Your task to perform on an android device: Go to display settings Image 0: 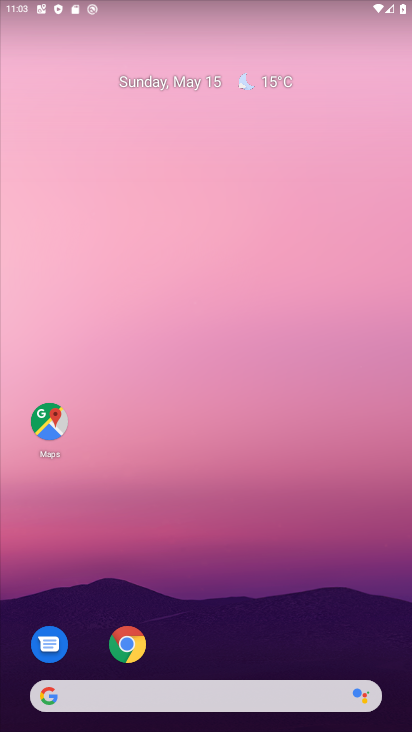
Step 0: drag from (264, 691) to (261, 77)
Your task to perform on an android device: Go to display settings Image 1: 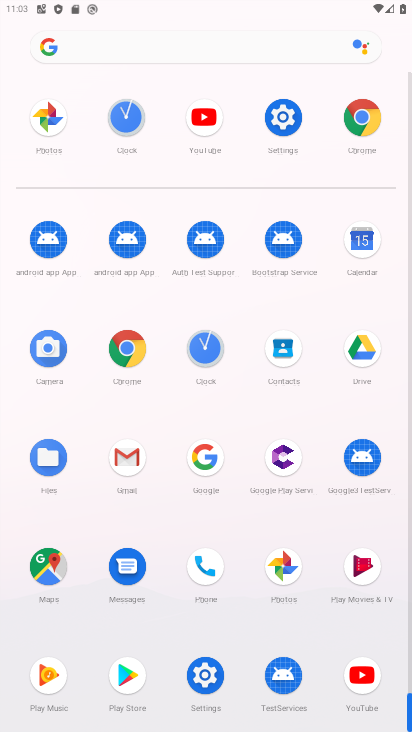
Step 1: click (283, 126)
Your task to perform on an android device: Go to display settings Image 2: 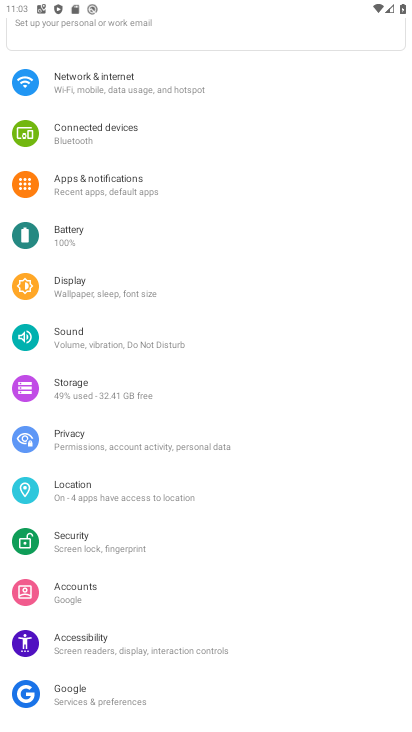
Step 2: click (100, 280)
Your task to perform on an android device: Go to display settings Image 3: 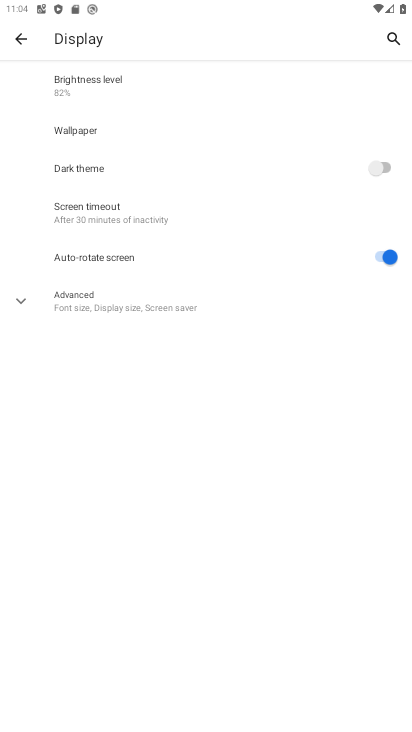
Step 3: task complete